Your task to perform on an android device: turn notification dots on Image 0: 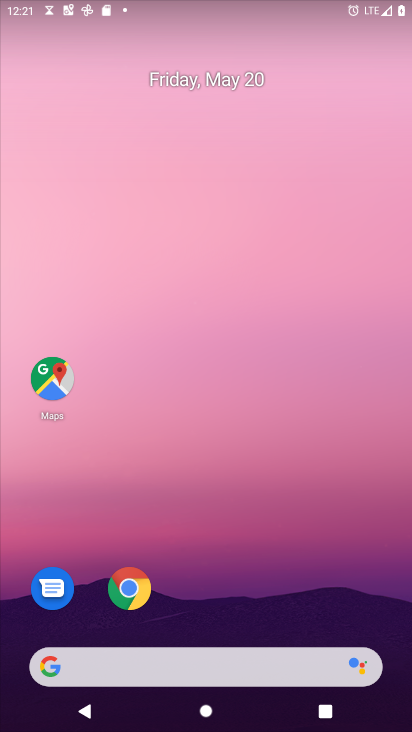
Step 0: click (139, 580)
Your task to perform on an android device: turn notification dots on Image 1: 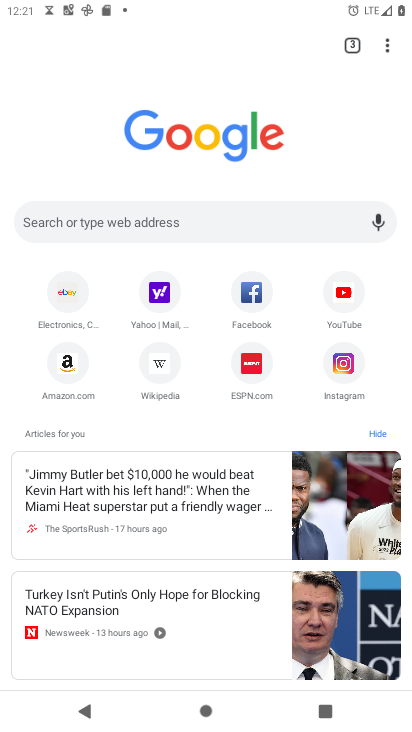
Step 1: click (385, 38)
Your task to perform on an android device: turn notification dots on Image 2: 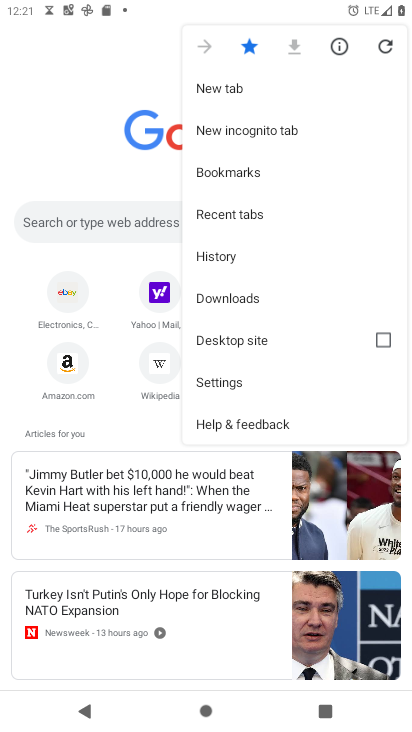
Step 2: press home button
Your task to perform on an android device: turn notification dots on Image 3: 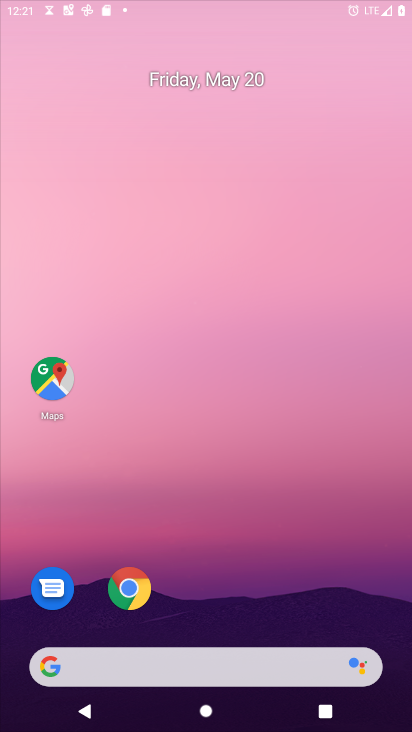
Step 3: drag from (272, 544) to (165, 5)
Your task to perform on an android device: turn notification dots on Image 4: 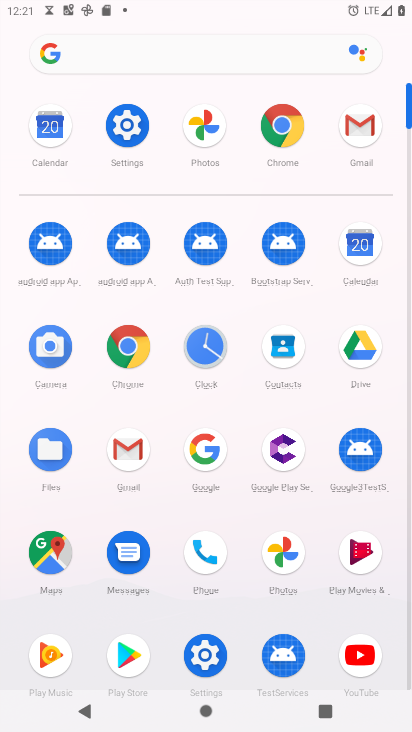
Step 4: click (125, 90)
Your task to perform on an android device: turn notification dots on Image 5: 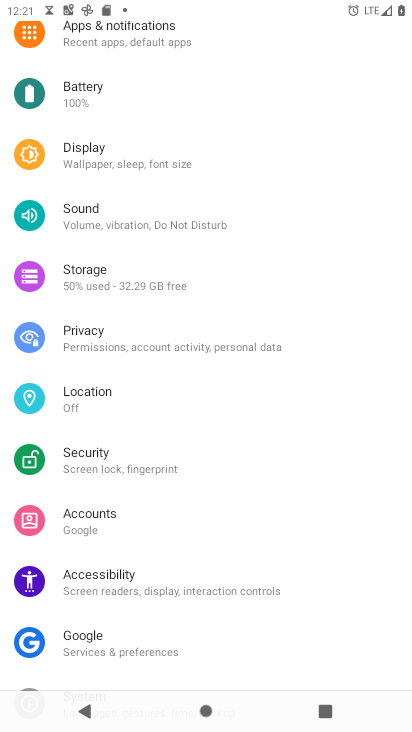
Step 5: drag from (183, 130) to (173, 521)
Your task to perform on an android device: turn notification dots on Image 6: 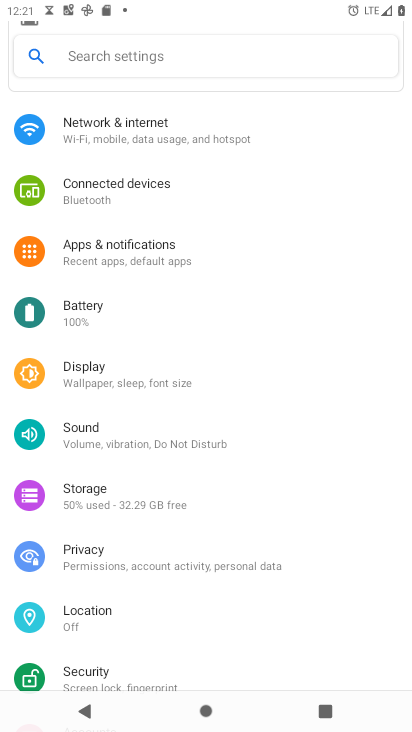
Step 6: click (157, 247)
Your task to perform on an android device: turn notification dots on Image 7: 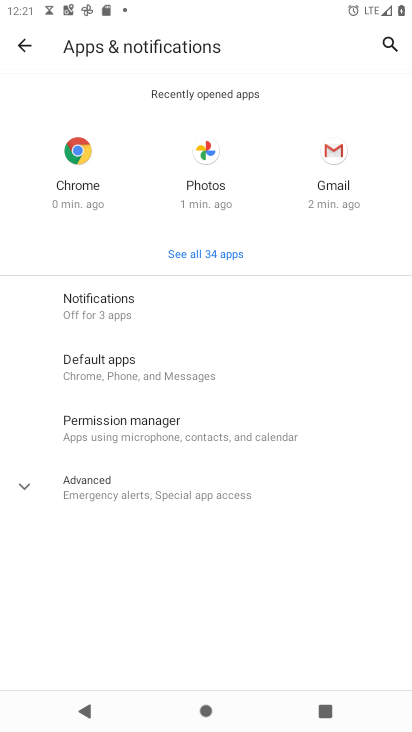
Step 7: click (221, 308)
Your task to perform on an android device: turn notification dots on Image 8: 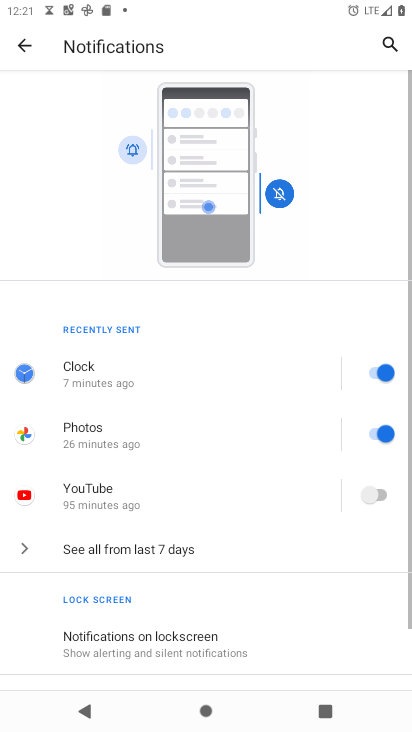
Step 8: drag from (249, 613) to (252, 69)
Your task to perform on an android device: turn notification dots on Image 9: 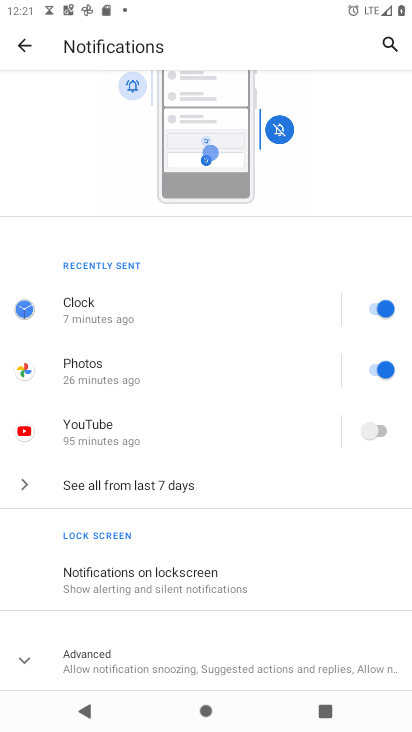
Step 9: click (227, 647)
Your task to perform on an android device: turn notification dots on Image 10: 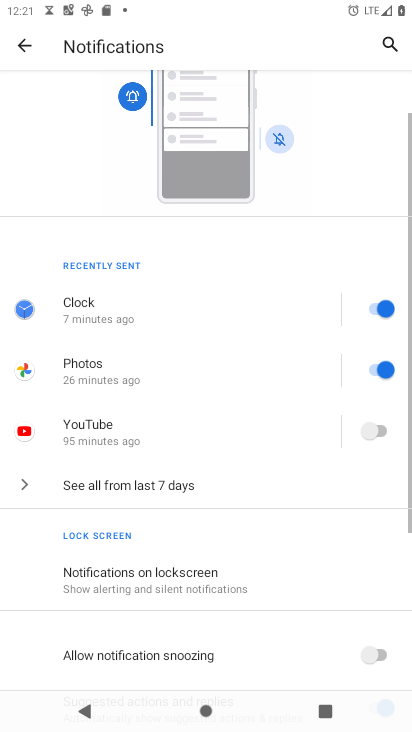
Step 10: drag from (267, 600) to (254, 175)
Your task to perform on an android device: turn notification dots on Image 11: 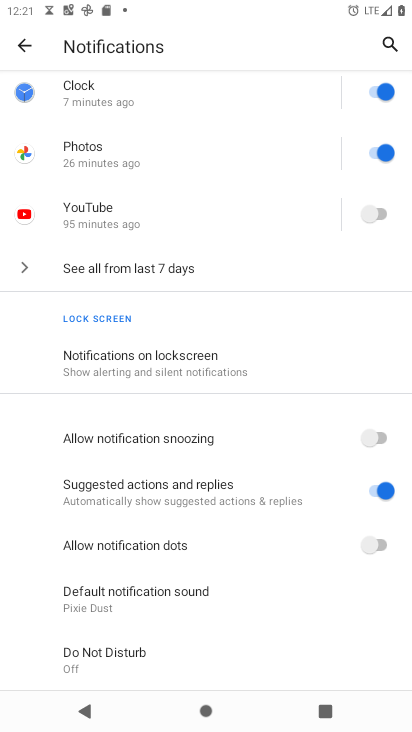
Step 11: click (365, 544)
Your task to perform on an android device: turn notification dots on Image 12: 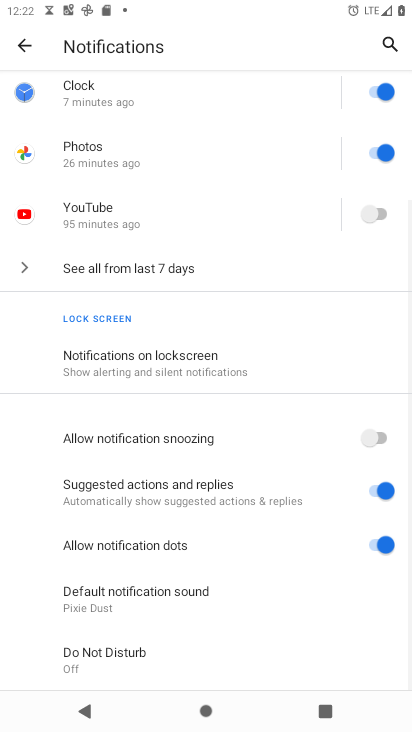
Step 12: task complete